Your task to perform on an android device: Go to CNN.com Image 0: 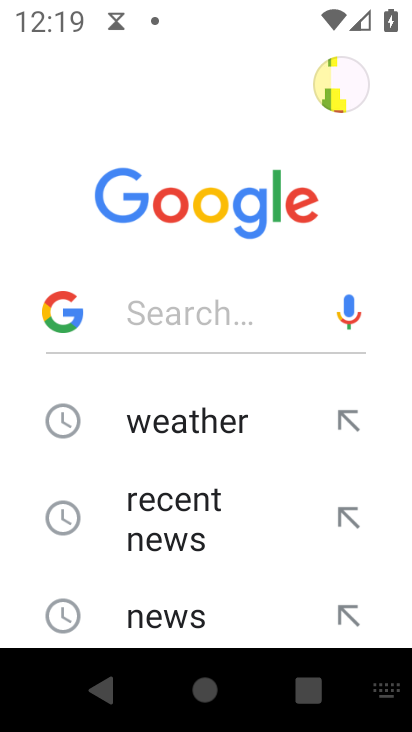
Step 0: click (244, 319)
Your task to perform on an android device: Go to CNN.com Image 1: 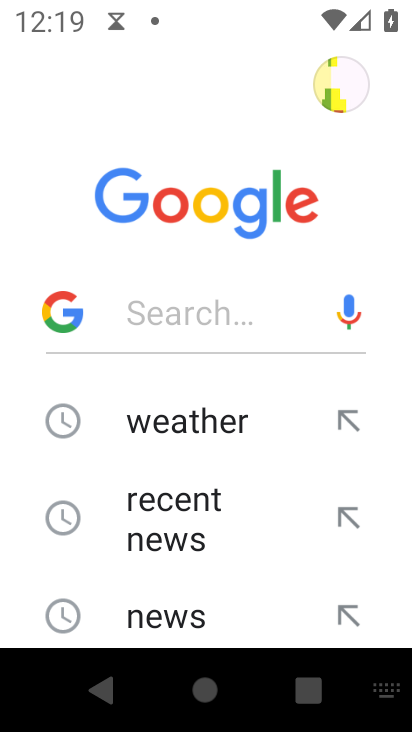
Step 1: type "cnn.com"
Your task to perform on an android device: Go to CNN.com Image 2: 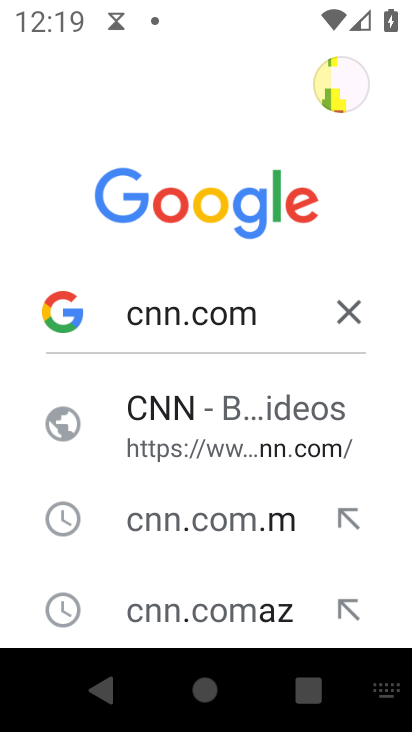
Step 2: click (292, 428)
Your task to perform on an android device: Go to CNN.com Image 3: 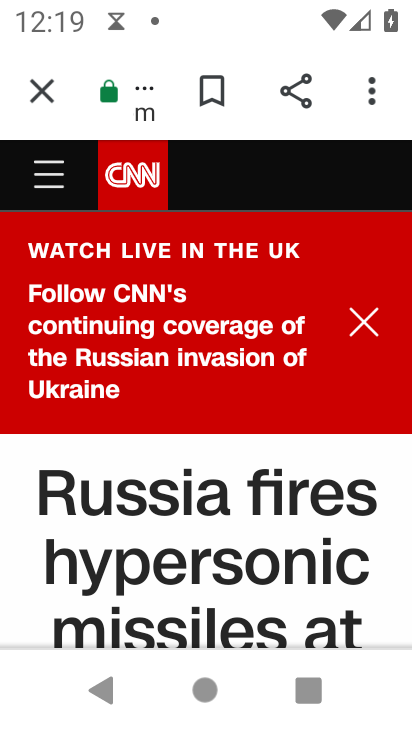
Step 3: task complete